Your task to perform on an android device: Open settings Image 0: 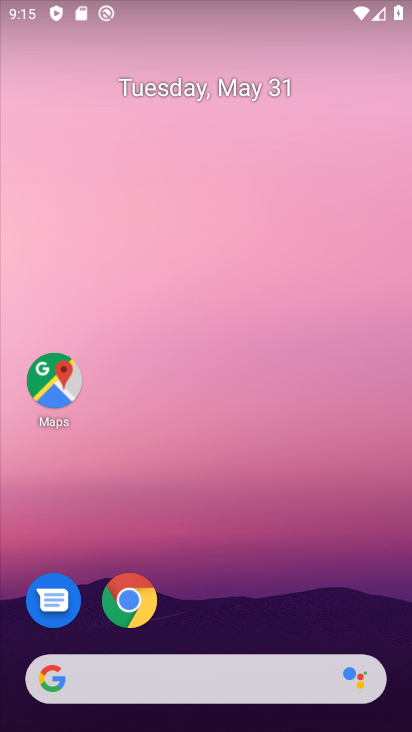
Step 0: drag from (199, 621) to (146, 0)
Your task to perform on an android device: Open settings Image 1: 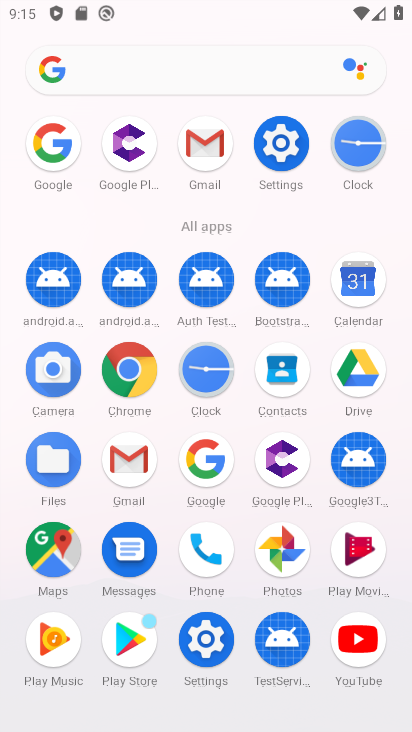
Step 1: click (275, 140)
Your task to perform on an android device: Open settings Image 2: 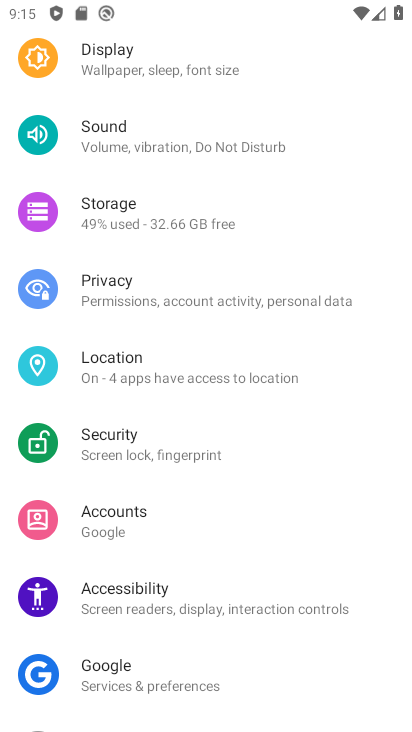
Step 2: task complete